Your task to perform on an android device: Check the weather Image 0: 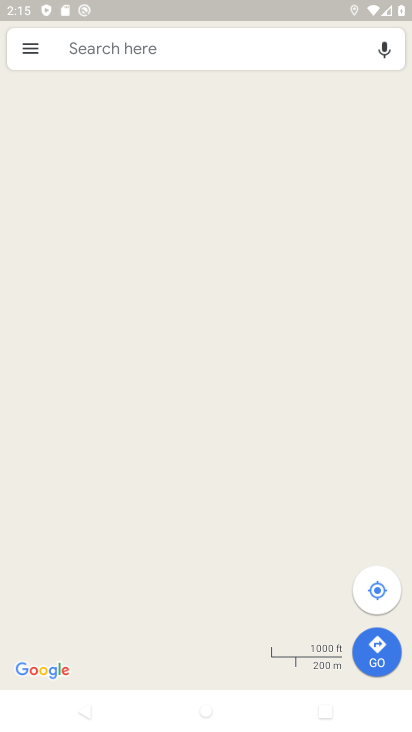
Step 0: press back button
Your task to perform on an android device: Check the weather Image 1: 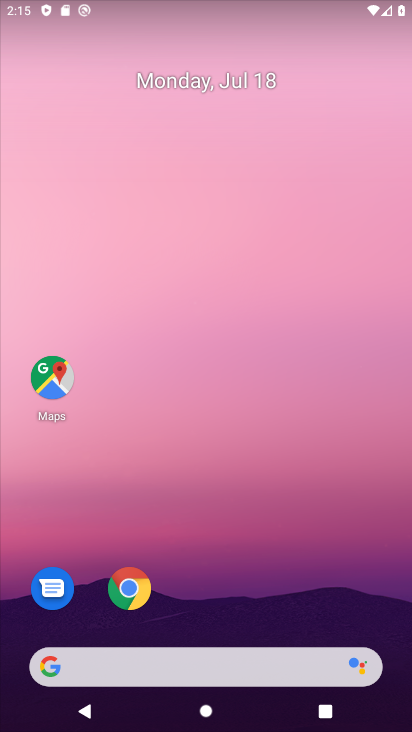
Step 1: click (145, 672)
Your task to perform on an android device: Check the weather Image 2: 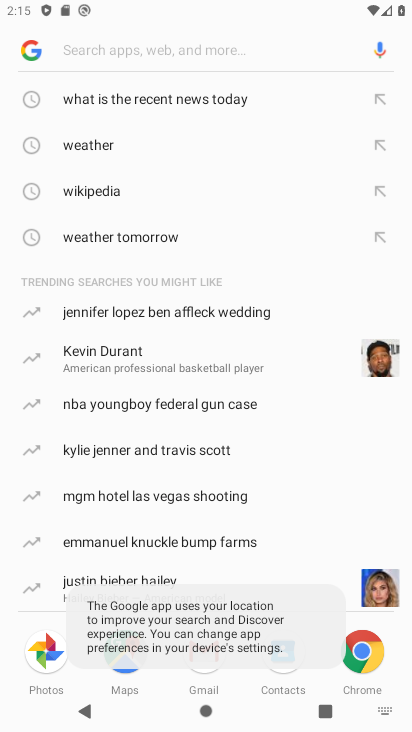
Step 2: click (101, 142)
Your task to perform on an android device: Check the weather Image 3: 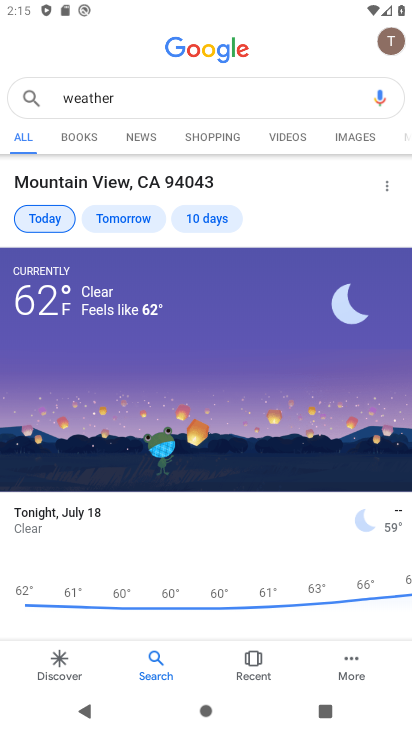
Step 3: task complete